Your task to perform on an android device: Go to CNN.com Image 0: 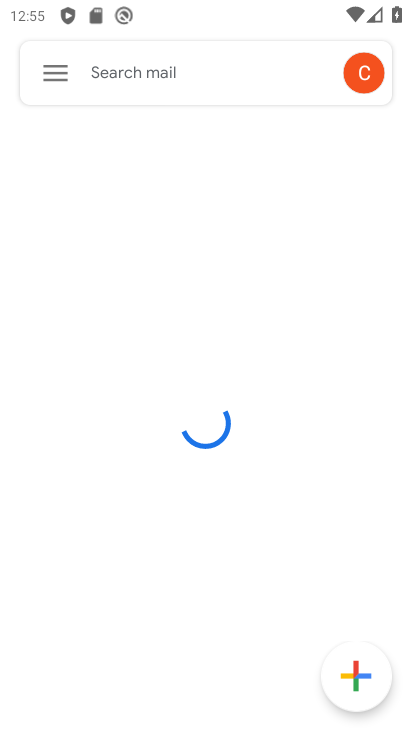
Step 0: press home button
Your task to perform on an android device: Go to CNN.com Image 1: 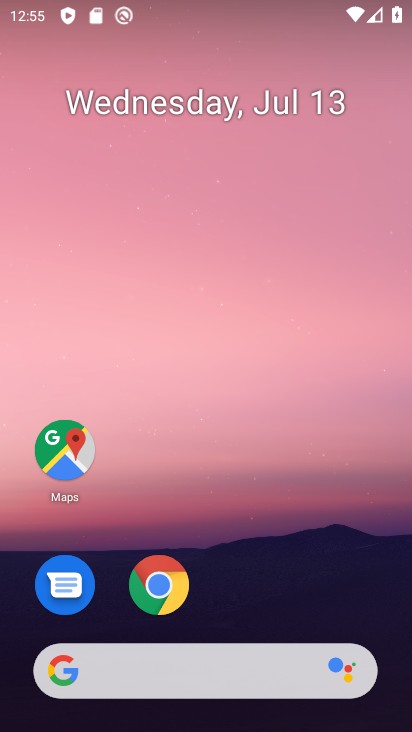
Step 1: click (158, 588)
Your task to perform on an android device: Go to CNN.com Image 2: 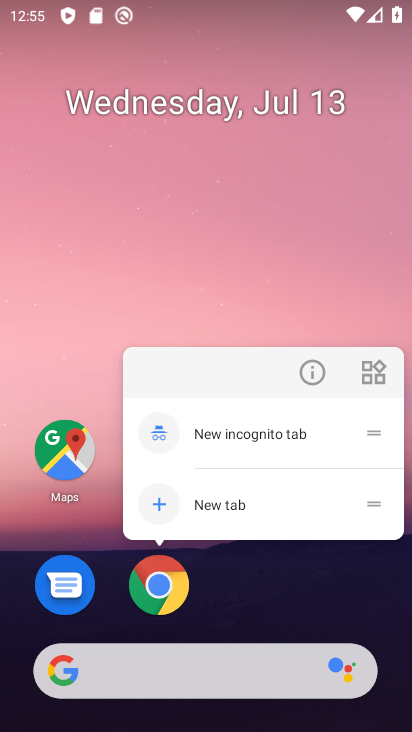
Step 2: click (158, 587)
Your task to perform on an android device: Go to CNN.com Image 3: 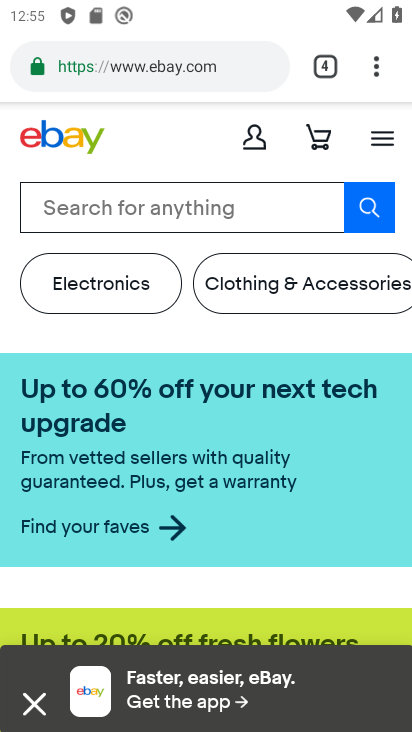
Step 3: drag from (378, 60) to (198, 125)
Your task to perform on an android device: Go to CNN.com Image 4: 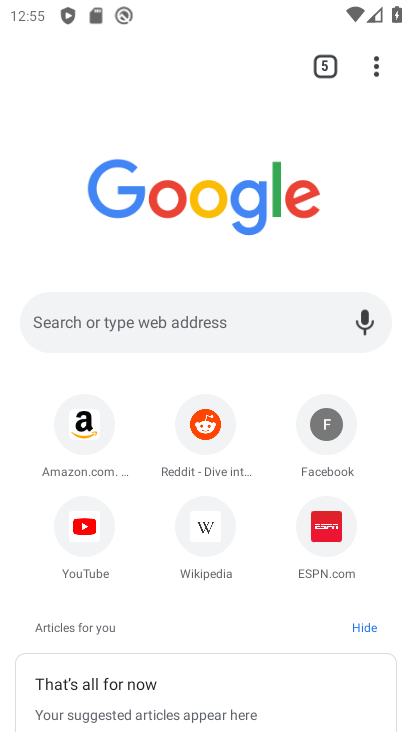
Step 4: click (191, 327)
Your task to perform on an android device: Go to CNN.com Image 5: 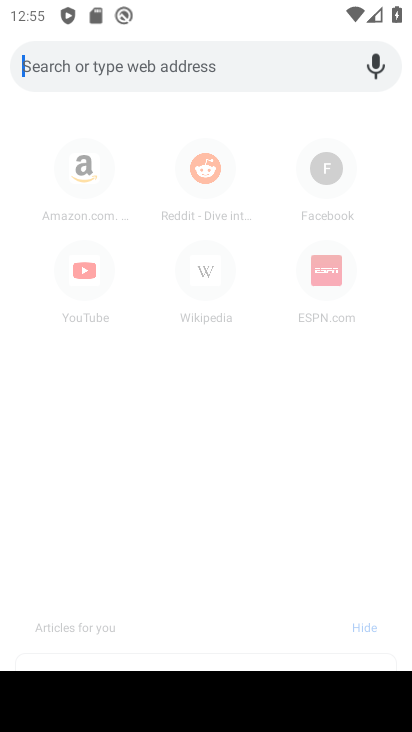
Step 5: type "cnn.com"
Your task to perform on an android device: Go to CNN.com Image 6: 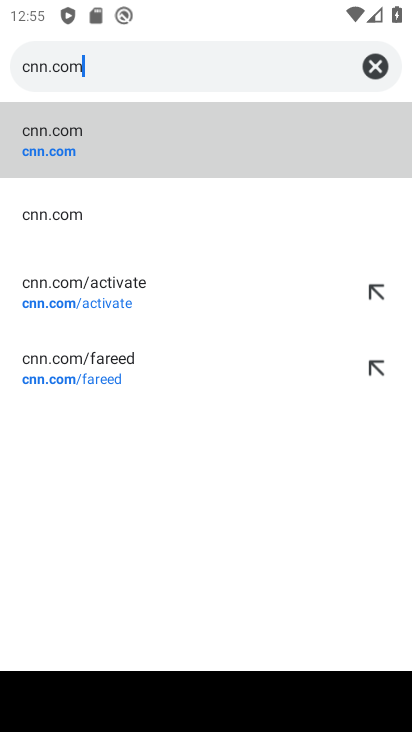
Step 6: click (157, 135)
Your task to perform on an android device: Go to CNN.com Image 7: 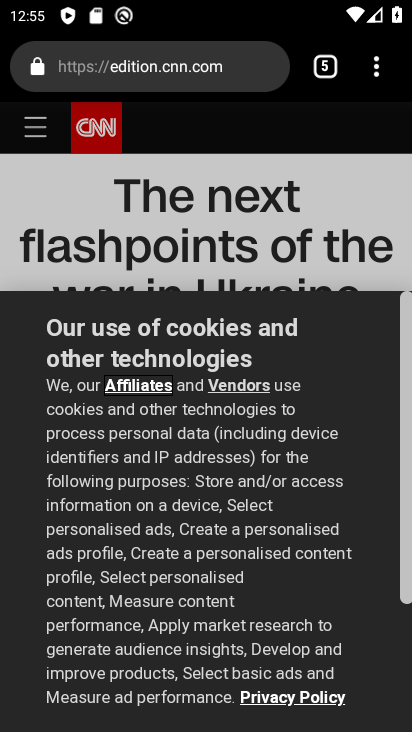
Step 7: drag from (215, 565) to (306, 178)
Your task to perform on an android device: Go to CNN.com Image 8: 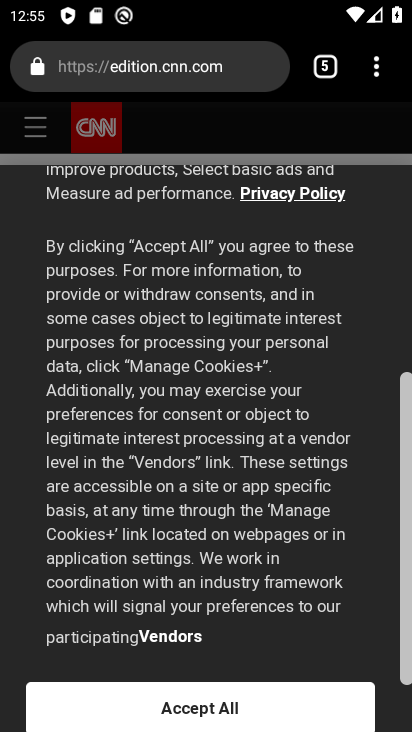
Step 8: drag from (177, 626) to (331, 109)
Your task to perform on an android device: Go to CNN.com Image 9: 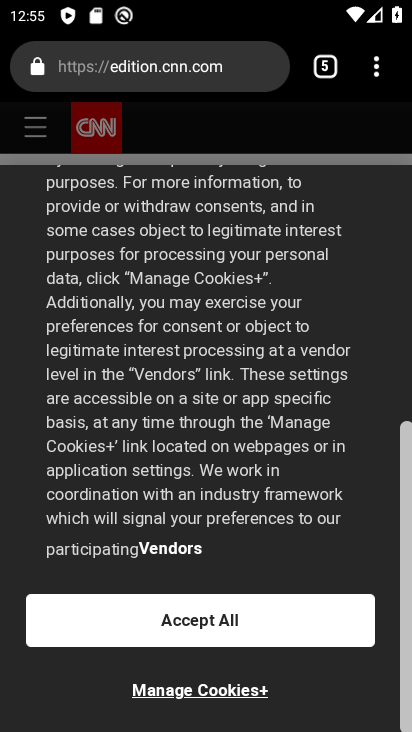
Step 9: click (210, 629)
Your task to perform on an android device: Go to CNN.com Image 10: 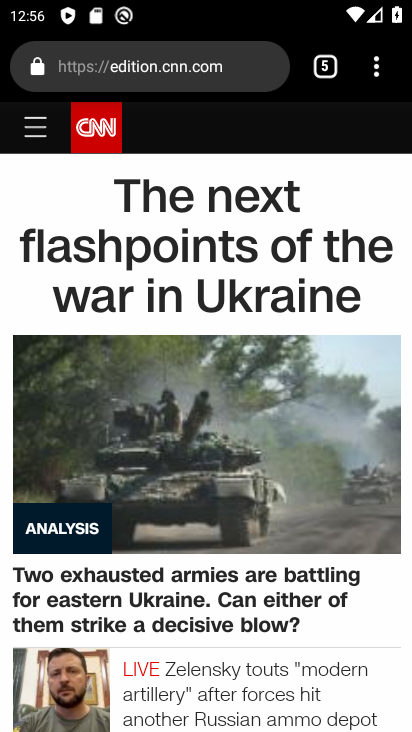
Step 10: task complete